Your task to perform on an android device: refresh tabs in the chrome app Image 0: 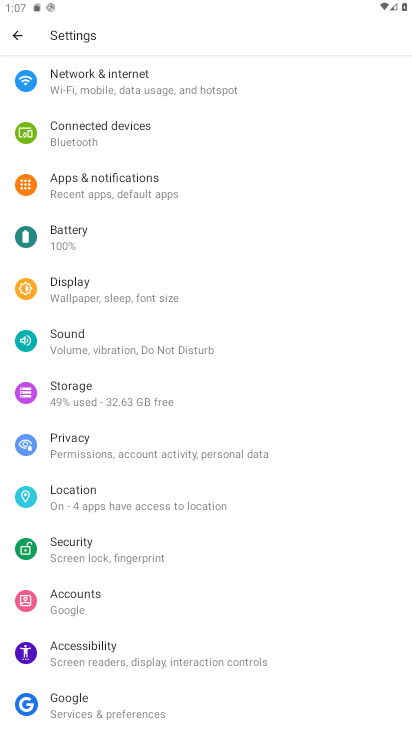
Step 0: click (20, 33)
Your task to perform on an android device: refresh tabs in the chrome app Image 1: 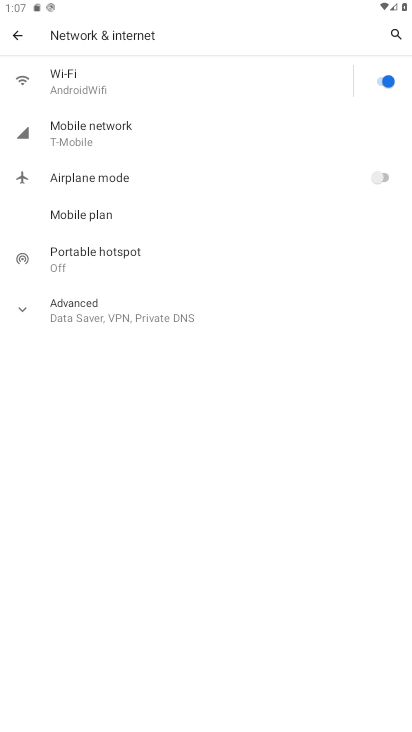
Step 1: click (16, 41)
Your task to perform on an android device: refresh tabs in the chrome app Image 2: 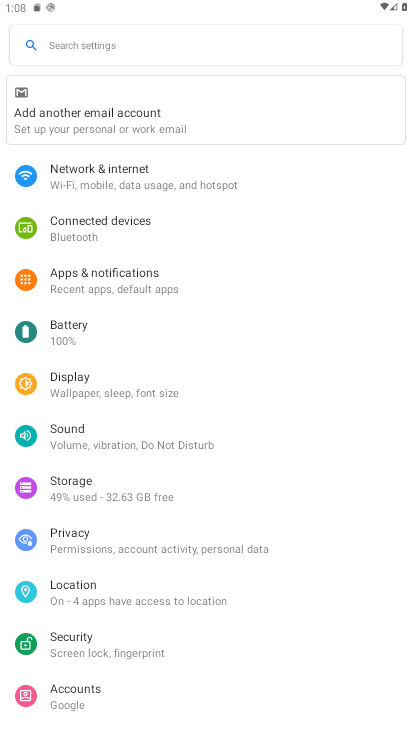
Step 2: press back button
Your task to perform on an android device: refresh tabs in the chrome app Image 3: 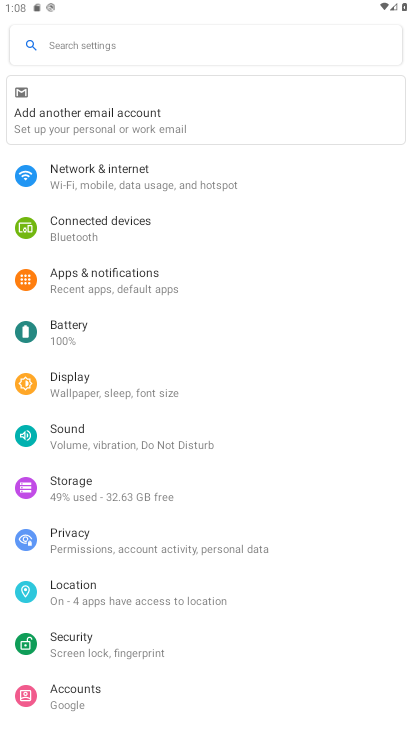
Step 3: press back button
Your task to perform on an android device: refresh tabs in the chrome app Image 4: 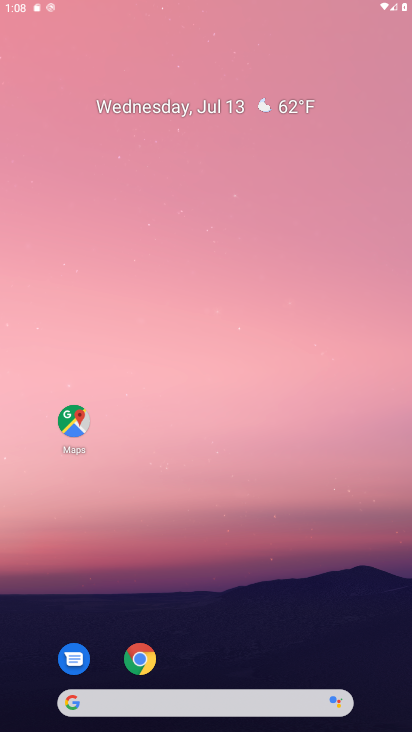
Step 4: press back button
Your task to perform on an android device: refresh tabs in the chrome app Image 5: 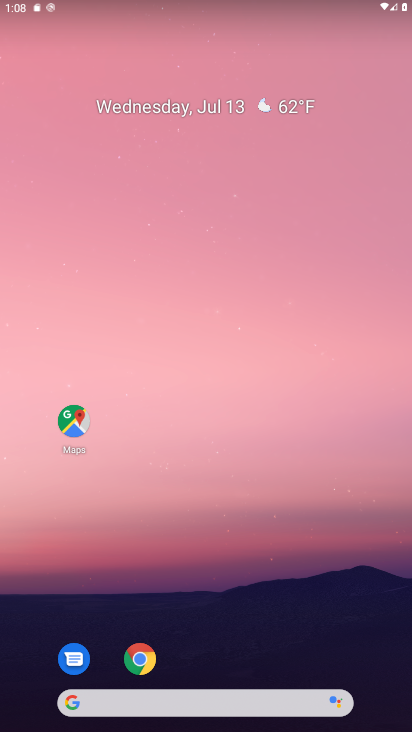
Step 5: drag from (205, 456) to (158, 199)
Your task to perform on an android device: refresh tabs in the chrome app Image 6: 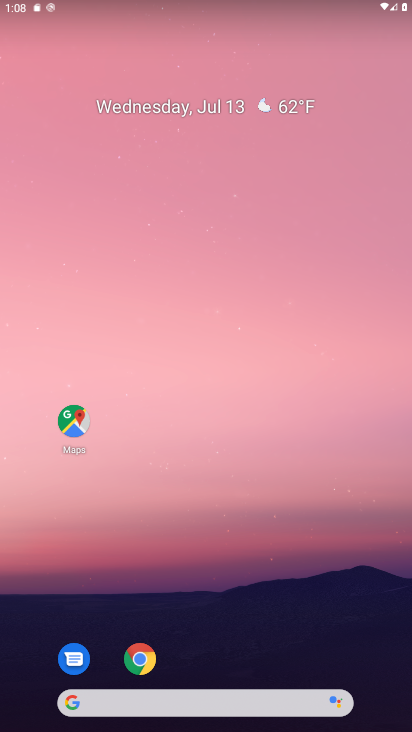
Step 6: drag from (272, 664) to (203, 116)
Your task to perform on an android device: refresh tabs in the chrome app Image 7: 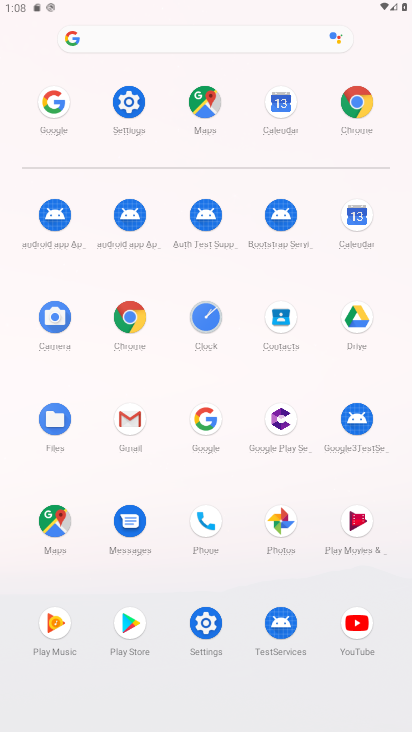
Step 7: click (120, 98)
Your task to perform on an android device: refresh tabs in the chrome app Image 8: 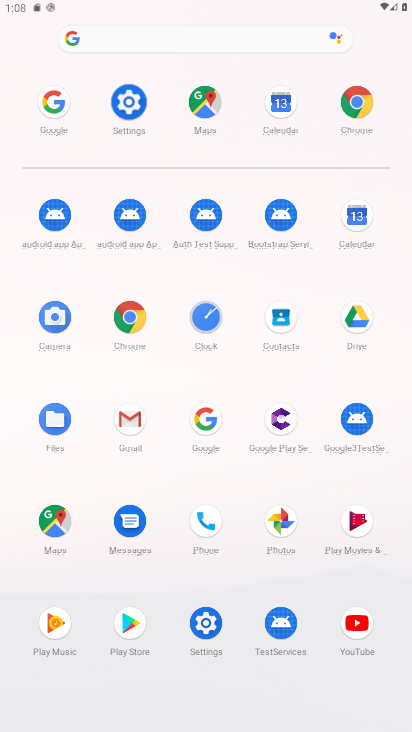
Step 8: click (120, 98)
Your task to perform on an android device: refresh tabs in the chrome app Image 9: 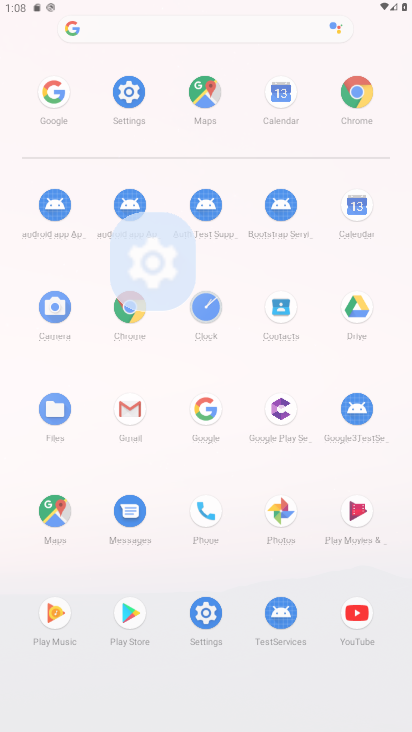
Step 9: click (120, 98)
Your task to perform on an android device: refresh tabs in the chrome app Image 10: 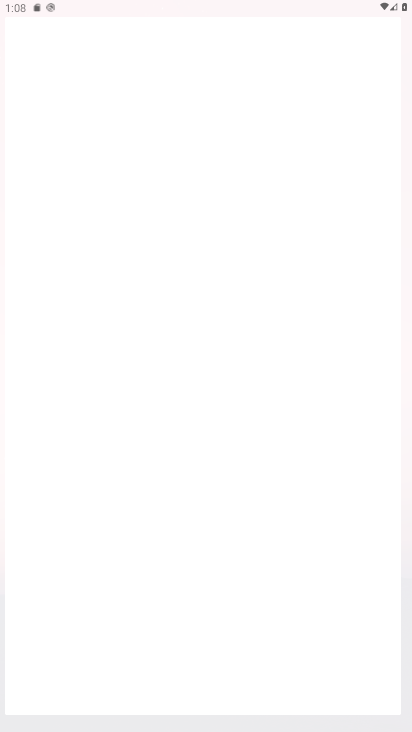
Step 10: click (121, 98)
Your task to perform on an android device: refresh tabs in the chrome app Image 11: 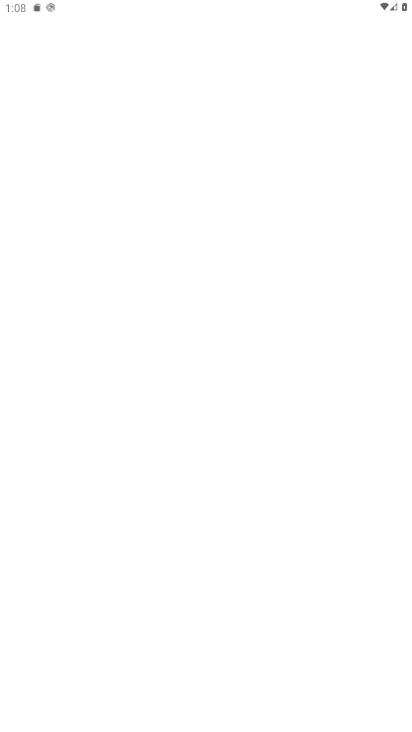
Step 11: click (121, 98)
Your task to perform on an android device: refresh tabs in the chrome app Image 12: 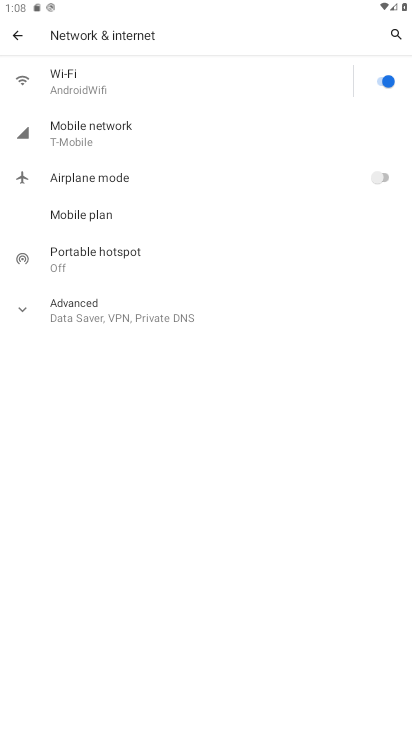
Step 12: click (28, 39)
Your task to perform on an android device: refresh tabs in the chrome app Image 13: 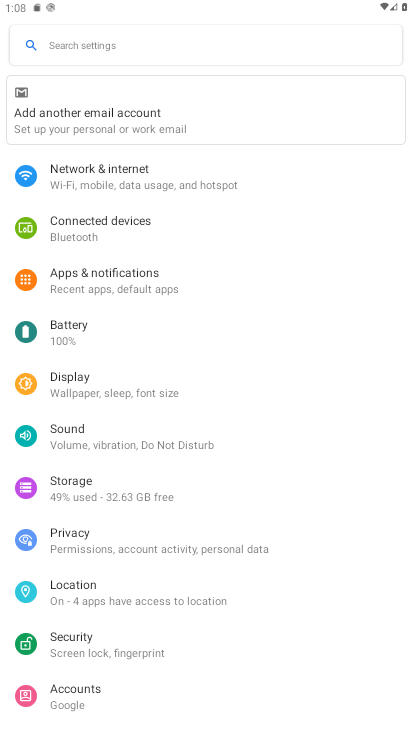
Step 13: press back button
Your task to perform on an android device: refresh tabs in the chrome app Image 14: 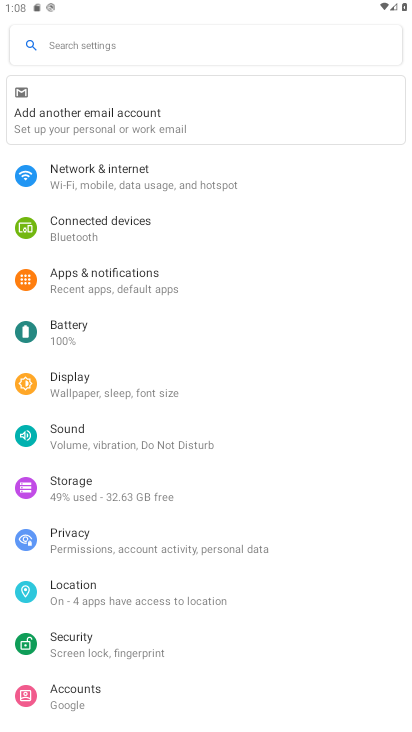
Step 14: press back button
Your task to perform on an android device: refresh tabs in the chrome app Image 15: 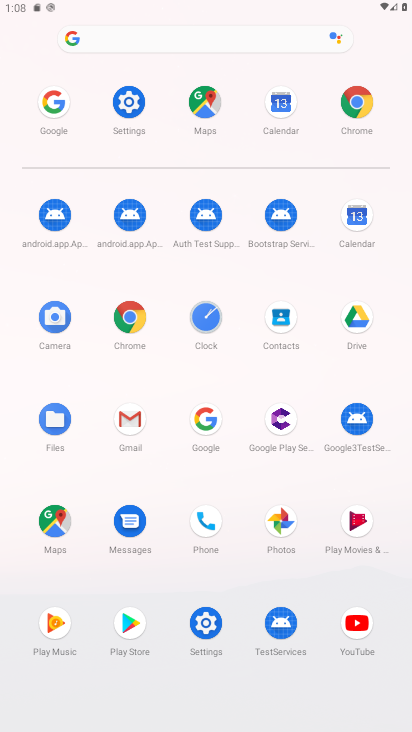
Step 15: press back button
Your task to perform on an android device: refresh tabs in the chrome app Image 16: 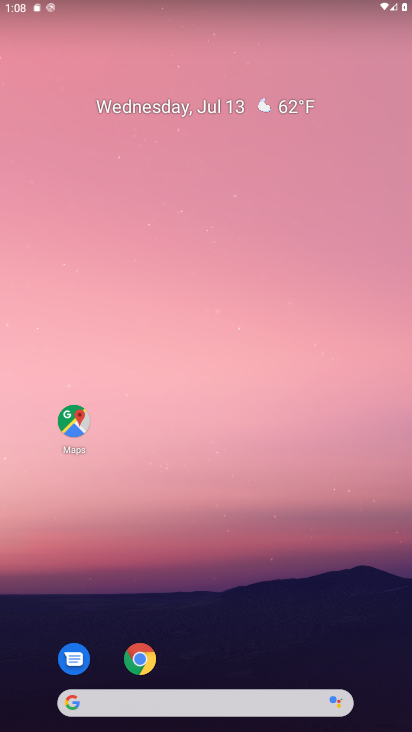
Step 16: drag from (258, 650) to (131, 1)
Your task to perform on an android device: refresh tabs in the chrome app Image 17: 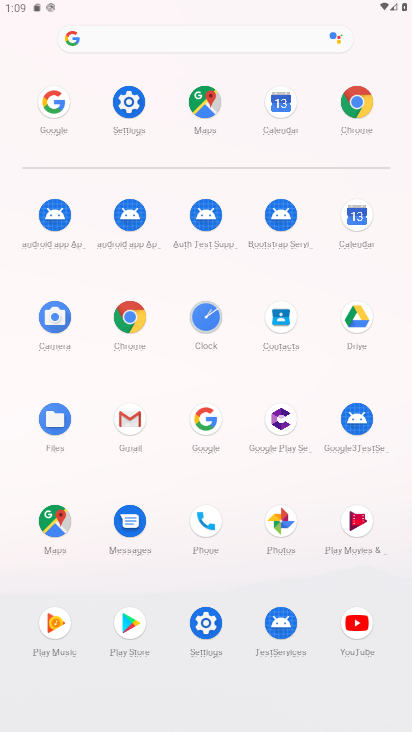
Step 17: click (356, 103)
Your task to perform on an android device: refresh tabs in the chrome app Image 18: 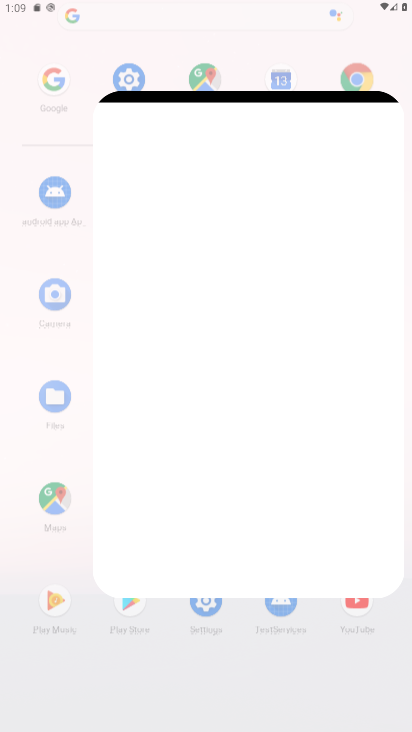
Step 18: click (356, 103)
Your task to perform on an android device: refresh tabs in the chrome app Image 19: 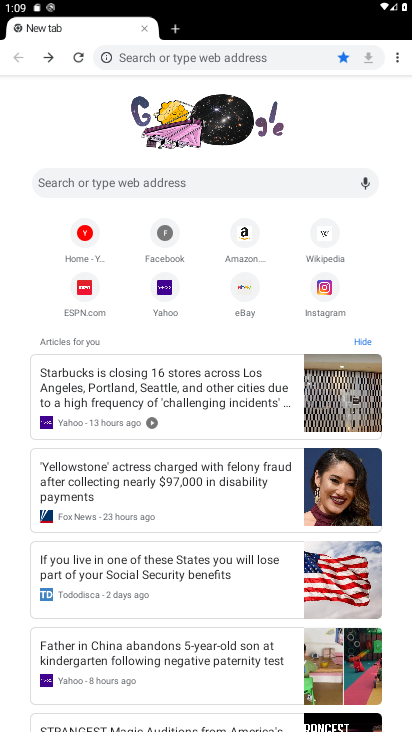
Step 19: drag from (397, 55) to (266, 101)
Your task to perform on an android device: refresh tabs in the chrome app Image 20: 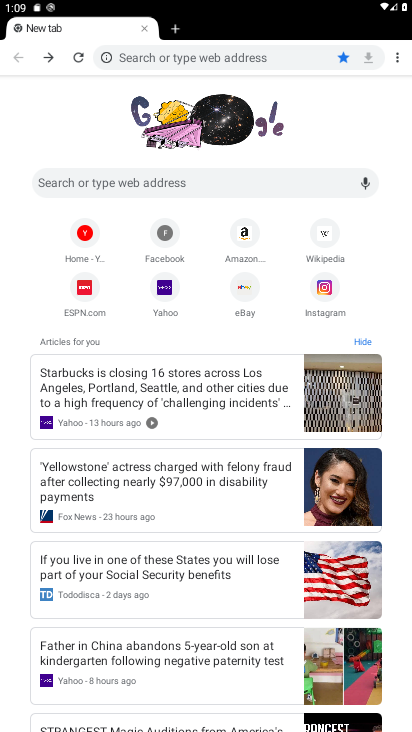
Step 20: click (37, 107)
Your task to perform on an android device: refresh tabs in the chrome app Image 21: 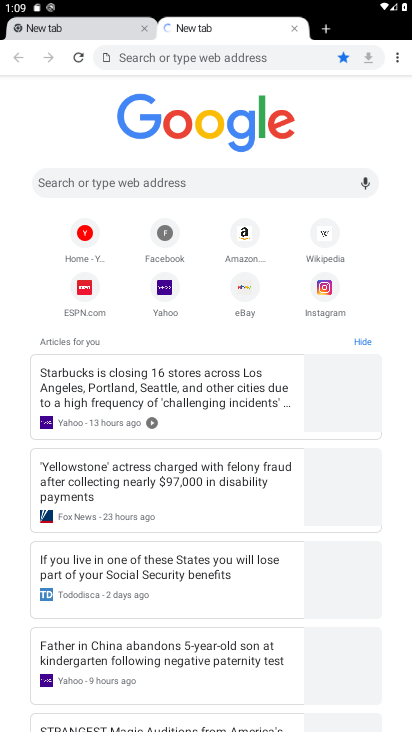
Step 21: click (79, 57)
Your task to perform on an android device: refresh tabs in the chrome app Image 22: 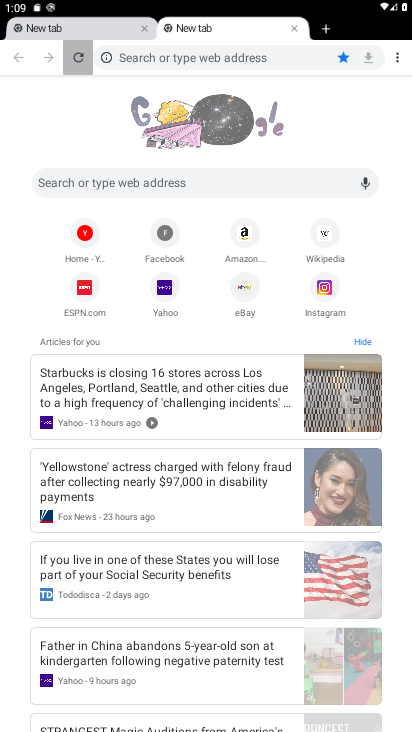
Step 22: click (79, 57)
Your task to perform on an android device: refresh tabs in the chrome app Image 23: 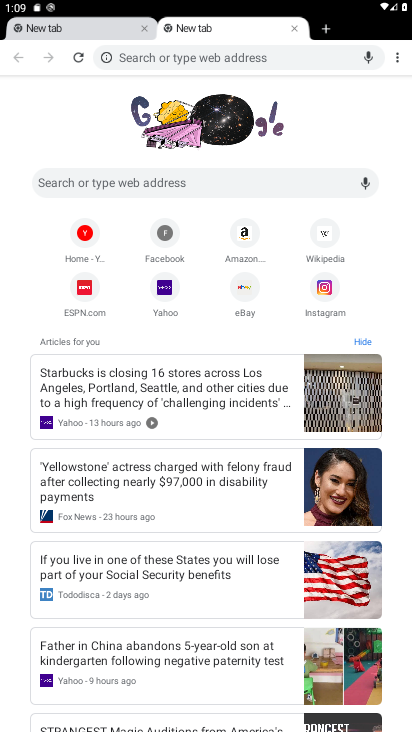
Step 23: task complete